Your task to perform on an android device: Open sound settings Image 0: 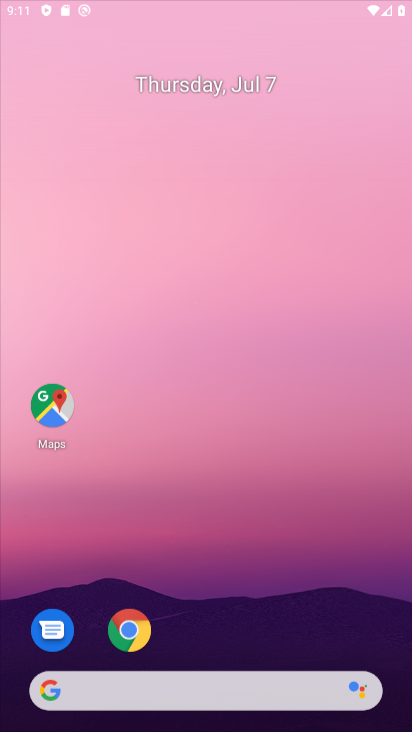
Step 0: click (176, 364)
Your task to perform on an android device: Open sound settings Image 1: 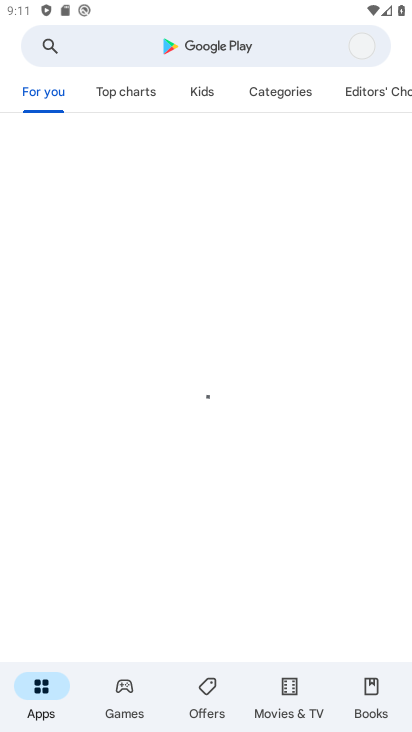
Step 1: press home button
Your task to perform on an android device: Open sound settings Image 2: 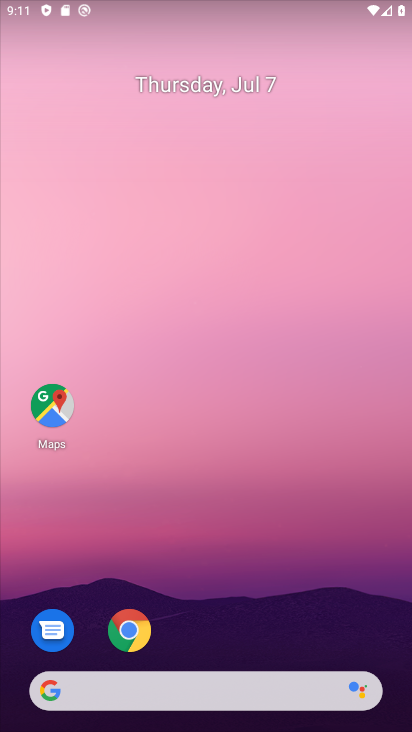
Step 2: drag from (178, 659) to (230, 295)
Your task to perform on an android device: Open sound settings Image 3: 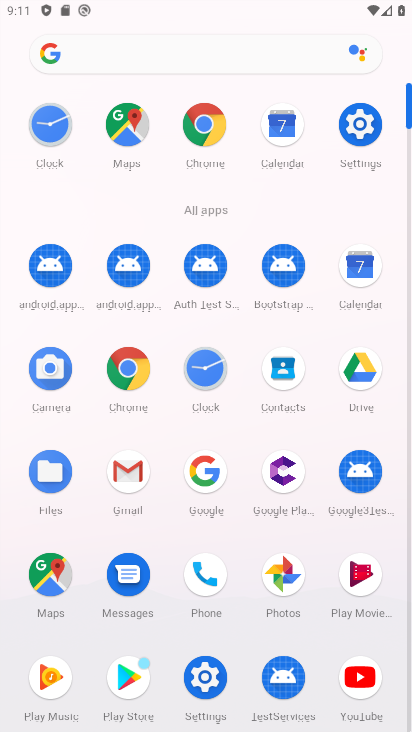
Step 3: click (373, 125)
Your task to perform on an android device: Open sound settings Image 4: 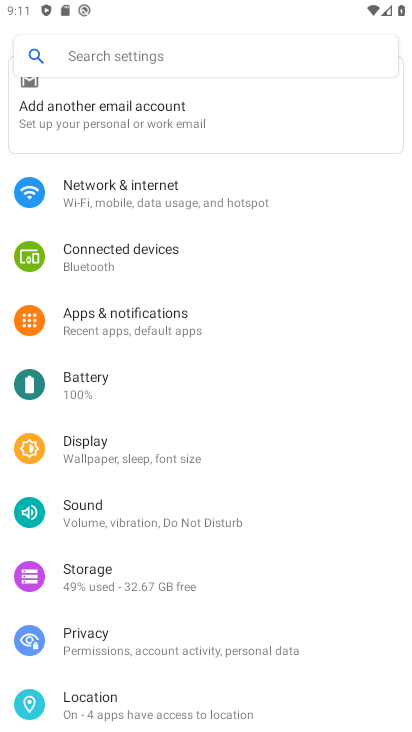
Step 4: click (97, 500)
Your task to perform on an android device: Open sound settings Image 5: 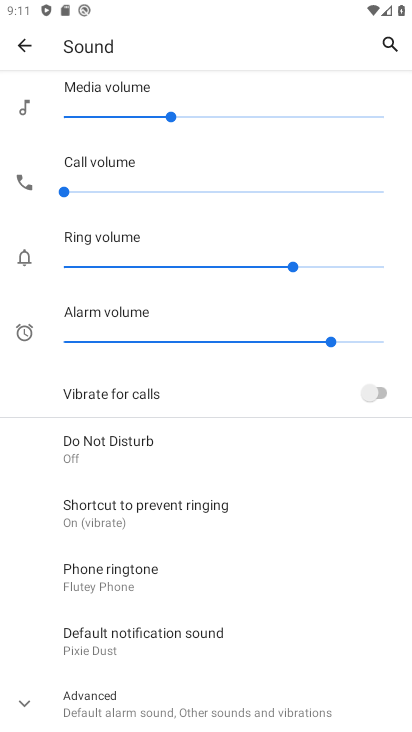
Step 5: drag from (147, 667) to (159, 320)
Your task to perform on an android device: Open sound settings Image 6: 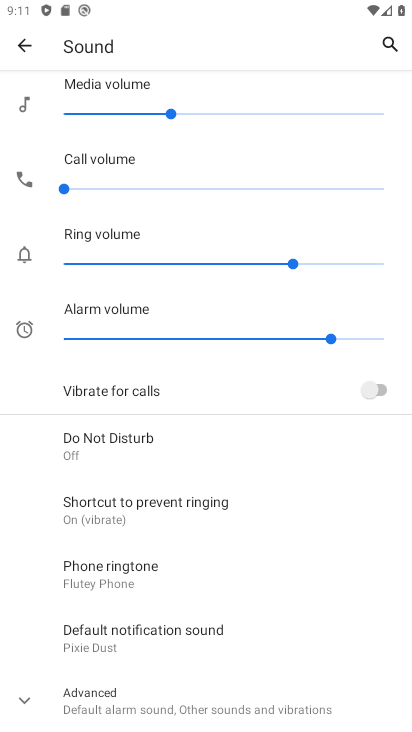
Step 6: click (156, 716)
Your task to perform on an android device: Open sound settings Image 7: 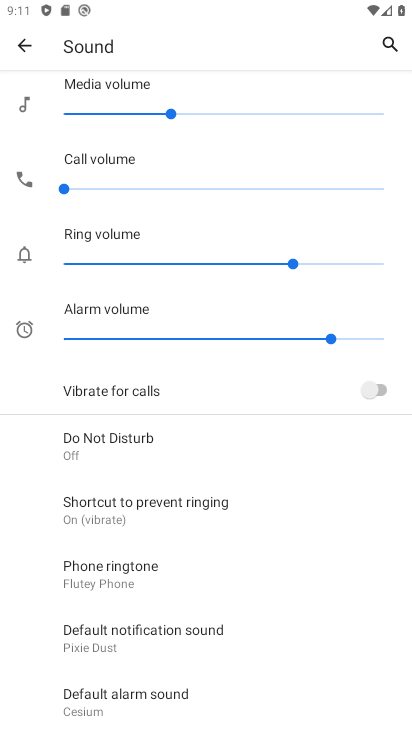
Step 7: task complete